Your task to perform on an android device: open app "Speedtest by Ookla" (install if not already installed) and go to login screen Image 0: 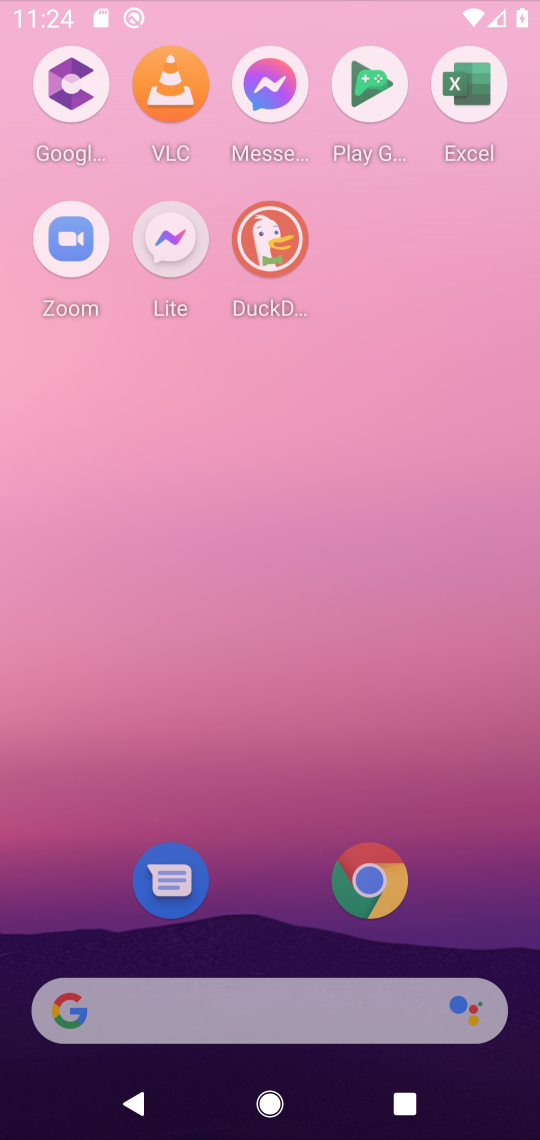
Step 0: drag from (312, 353) to (495, 157)
Your task to perform on an android device: open app "Speedtest by Ookla" (install if not already installed) and go to login screen Image 1: 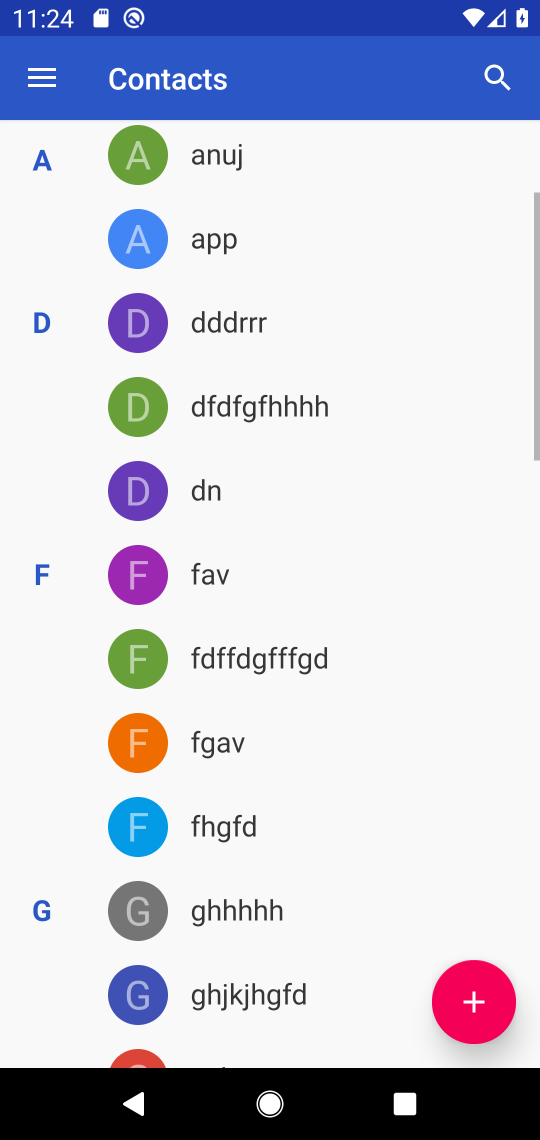
Step 1: press home button
Your task to perform on an android device: open app "Speedtest by Ookla" (install if not already installed) and go to login screen Image 2: 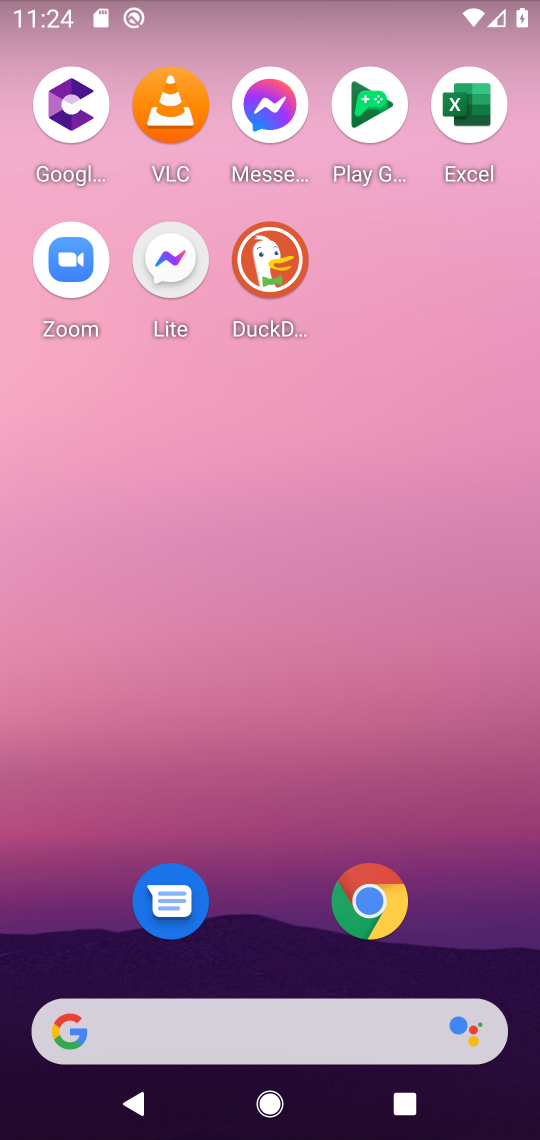
Step 2: drag from (273, 974) to (321, 318)
Your task to perform on an android device: open app "Speedtest by Ookla" (install if not already installed) and go to login screen Image 3: 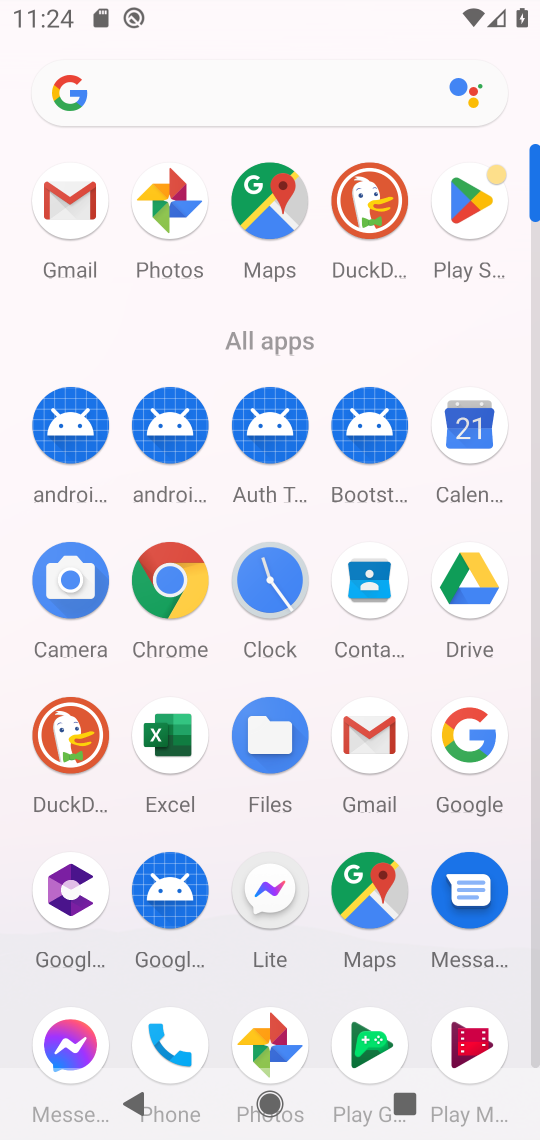
Step 3: click (469, 260)
Your task to perform on an android device: open app "Speedtest by Ookla" (install if not already installed) and go to login screen Image 4: 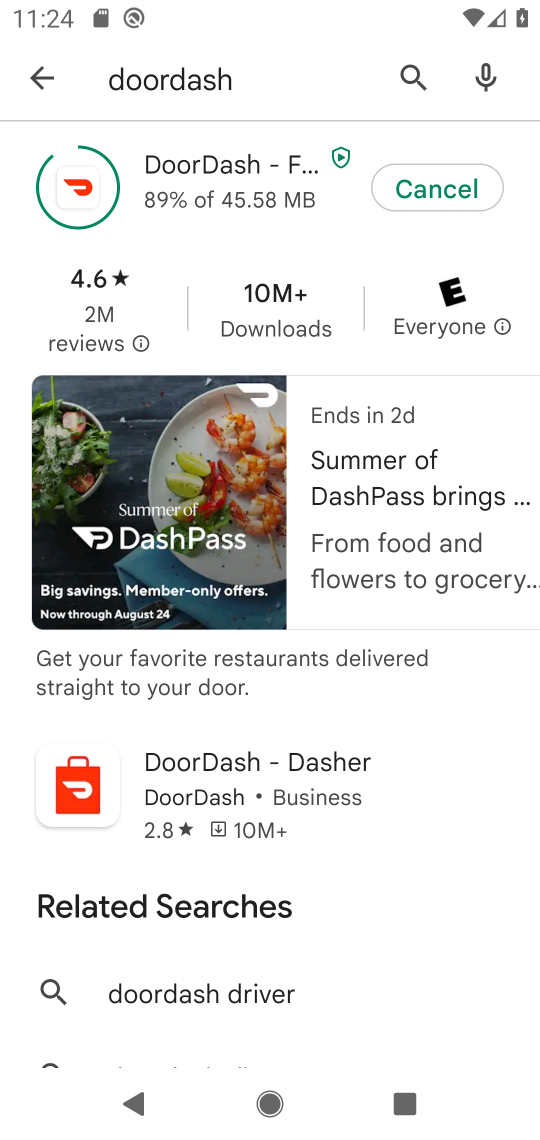
Step 4: click (426, 91)
Your task to perform on an android device: open app "Speedtest by Ookla" (install if not already installed) and go to login screen Image 5: 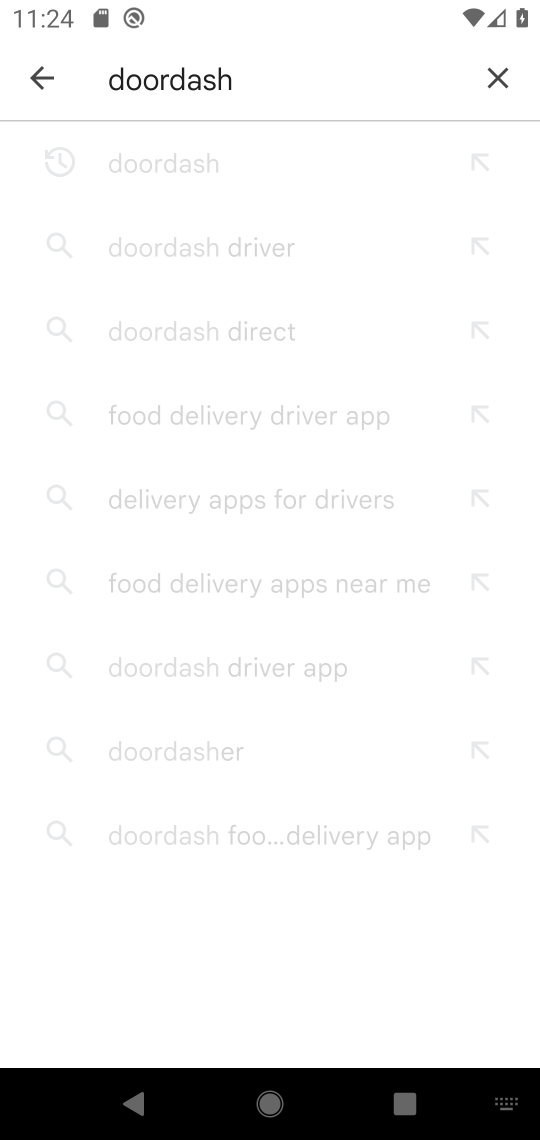
Step 5: click (491, 76)
Your task to perform on an android device: open app "Speedtest by Ookla" (install if not already installed) and go to login screen Image 6: 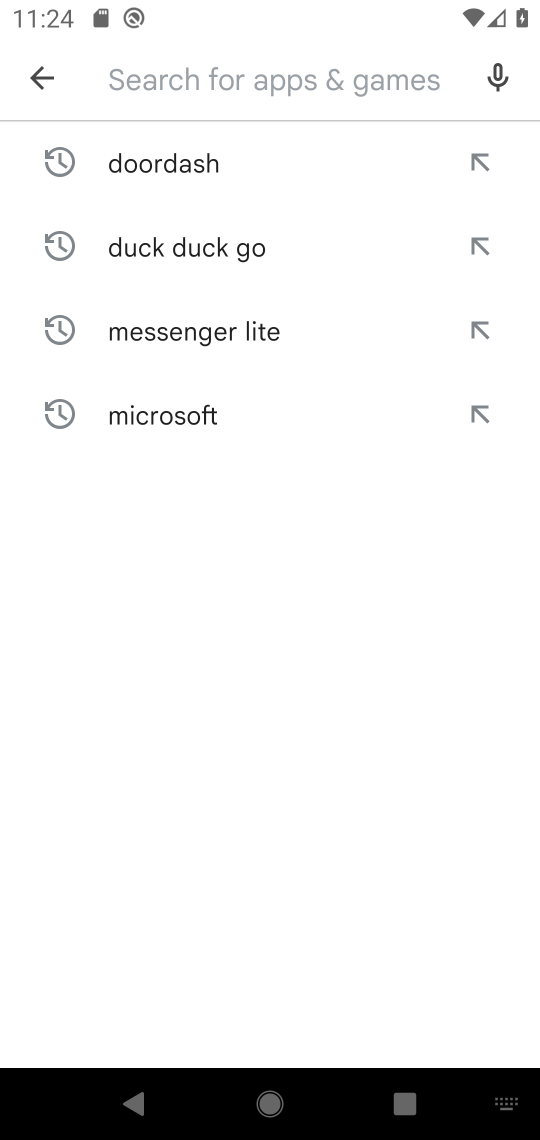
Step 6: type "speedtest"
Your task to perform on an android device: open app "Speedtest by Ookla" (install if not already installed) and go to login screen Image 7: 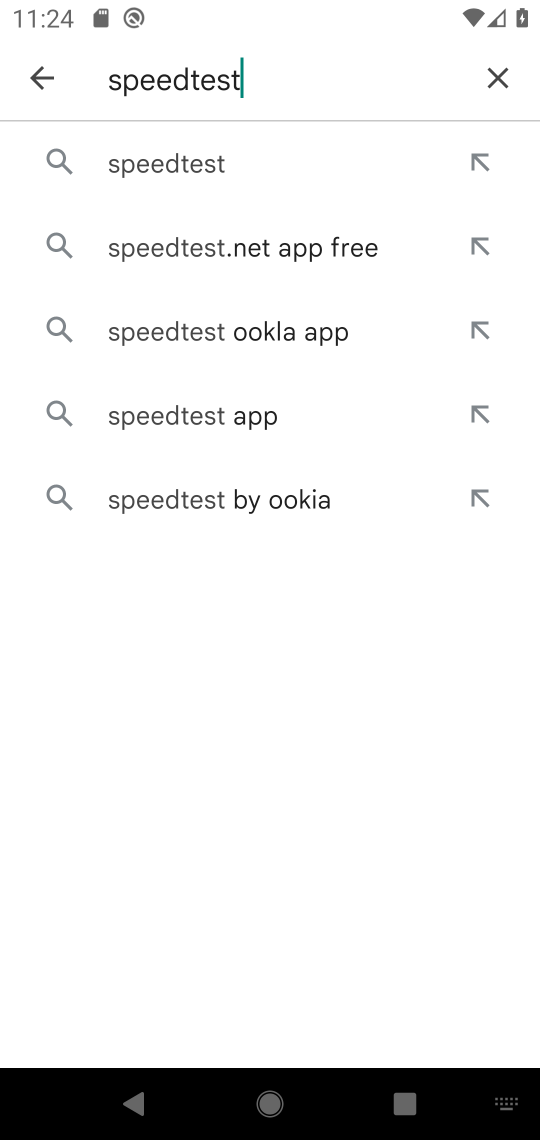
Step 7: click (244, 161)
Your task to perform on an android device: open app "Speedtest by Ookla" (install if not already installed) and go to login screen Image 8: 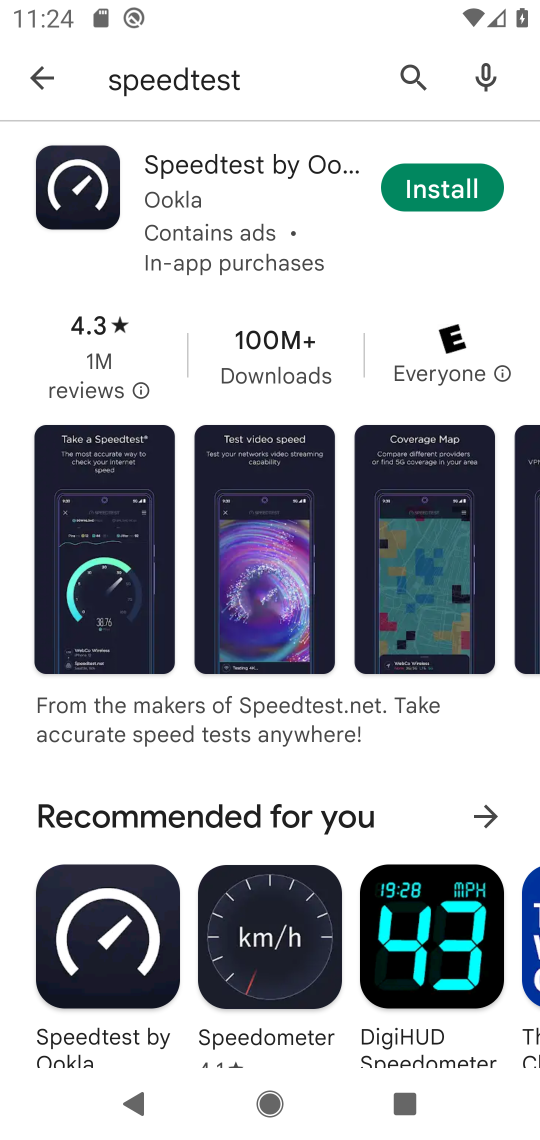
Step 8: click (449, 208)
Your task to perform on an android device: open app "Speedtest by Ookla" (install if not already installed) and go to login screen Image 9: 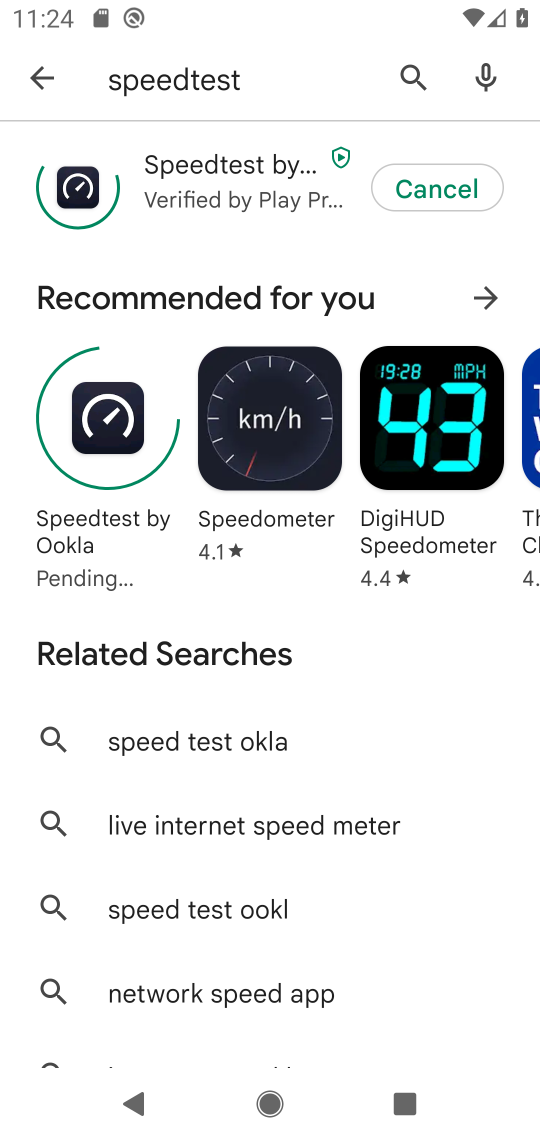
Step 9: task complete